Your task to perform on an android device: Open Google Chrome Image 0: 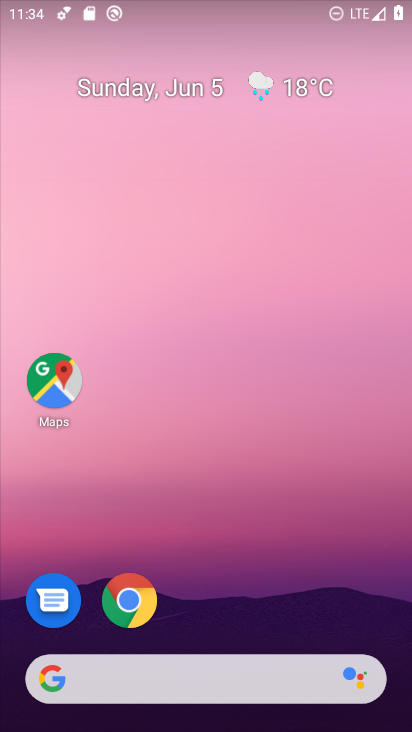
Step 0: click (142, 611)
Your task to perform on an android device: Open Google Chrome Image 1: 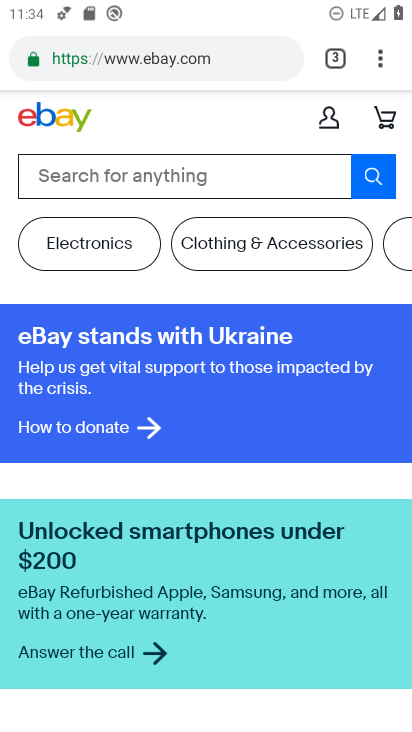
Step 1: task complete